Your task to perform on an android device: open app "YouTube Kids" (install if not already installed), go to login, and select forgot password Image 0: 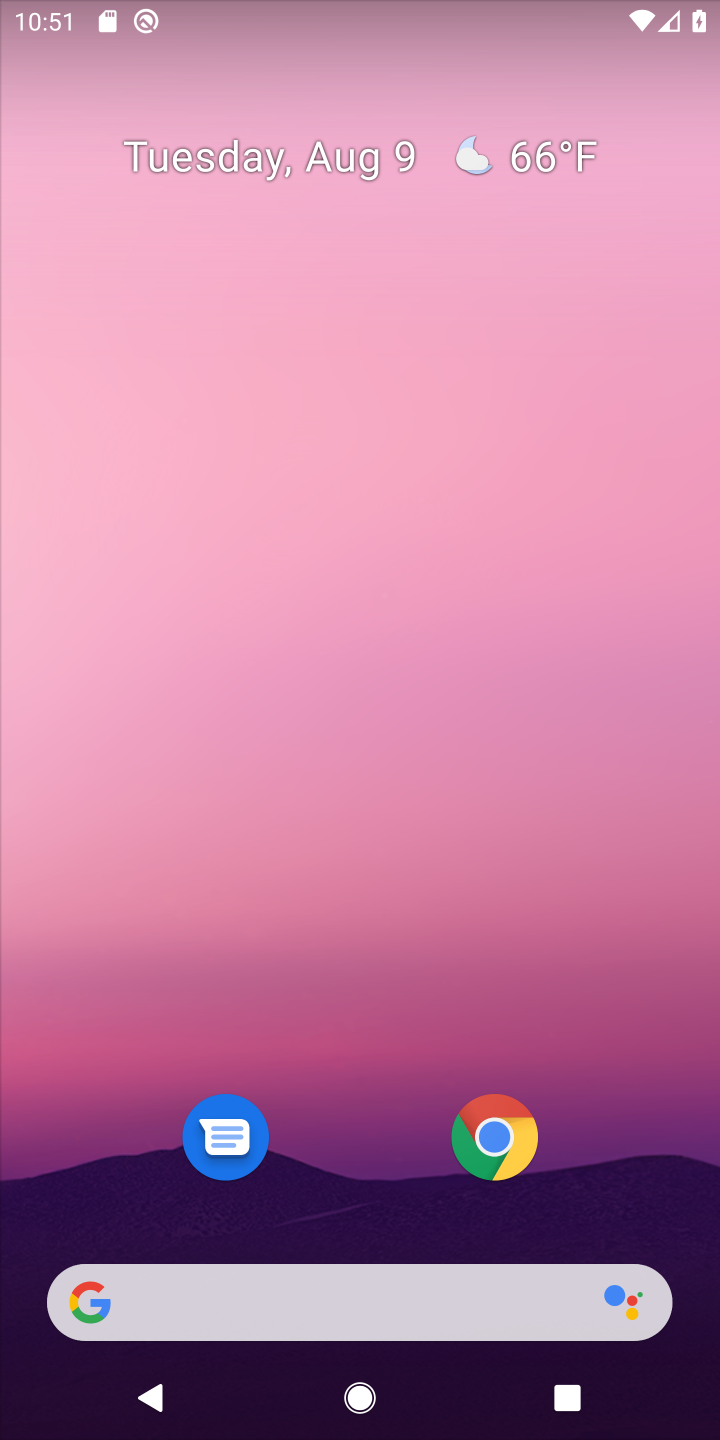
Step 0: drag from (360, 1039) to (375, 350)
Your task to perform on an android device: open app "YouTube Kids" (install if not already installed), go to login, and select forgot password Image 1: 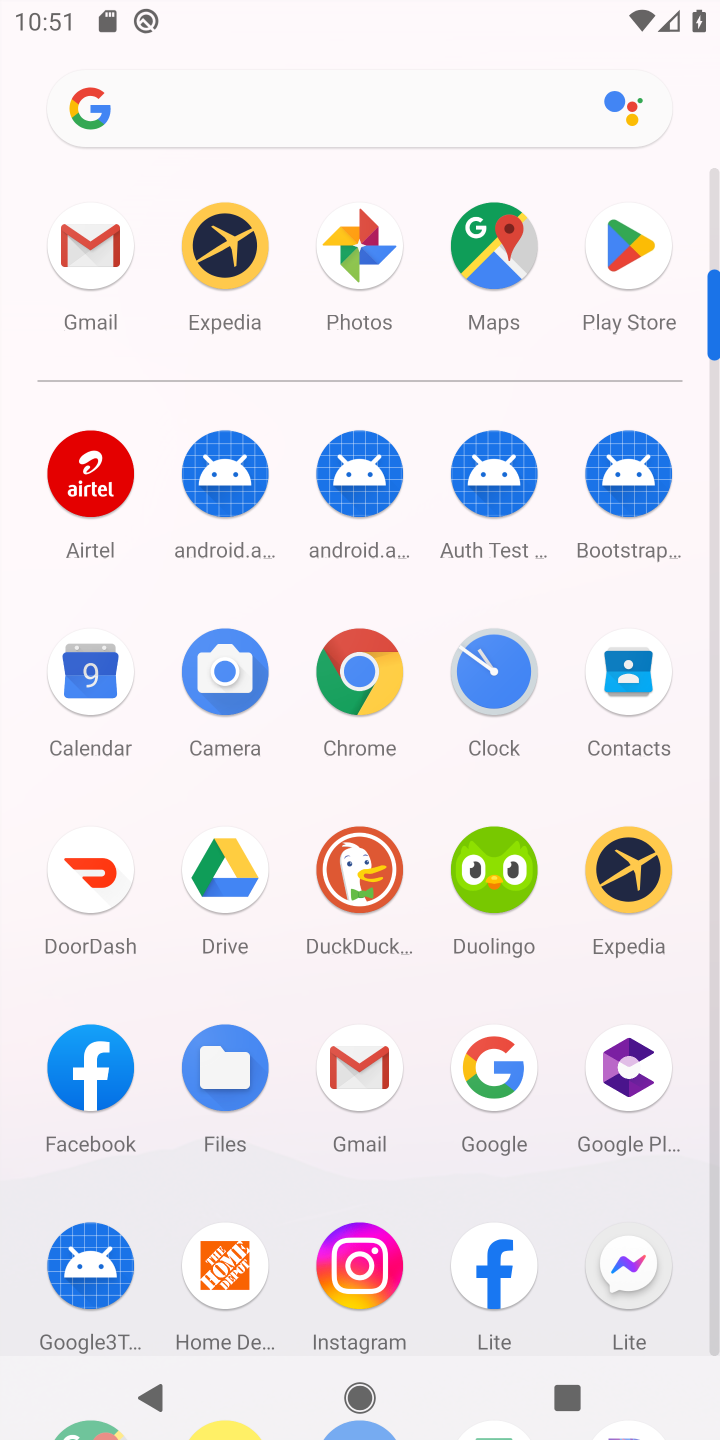
Step 1: click (619, 247)
Your task to perform on an android device: open app "YouTube Kids" (install if not already installed), go to login, and select forgot password Image 2: 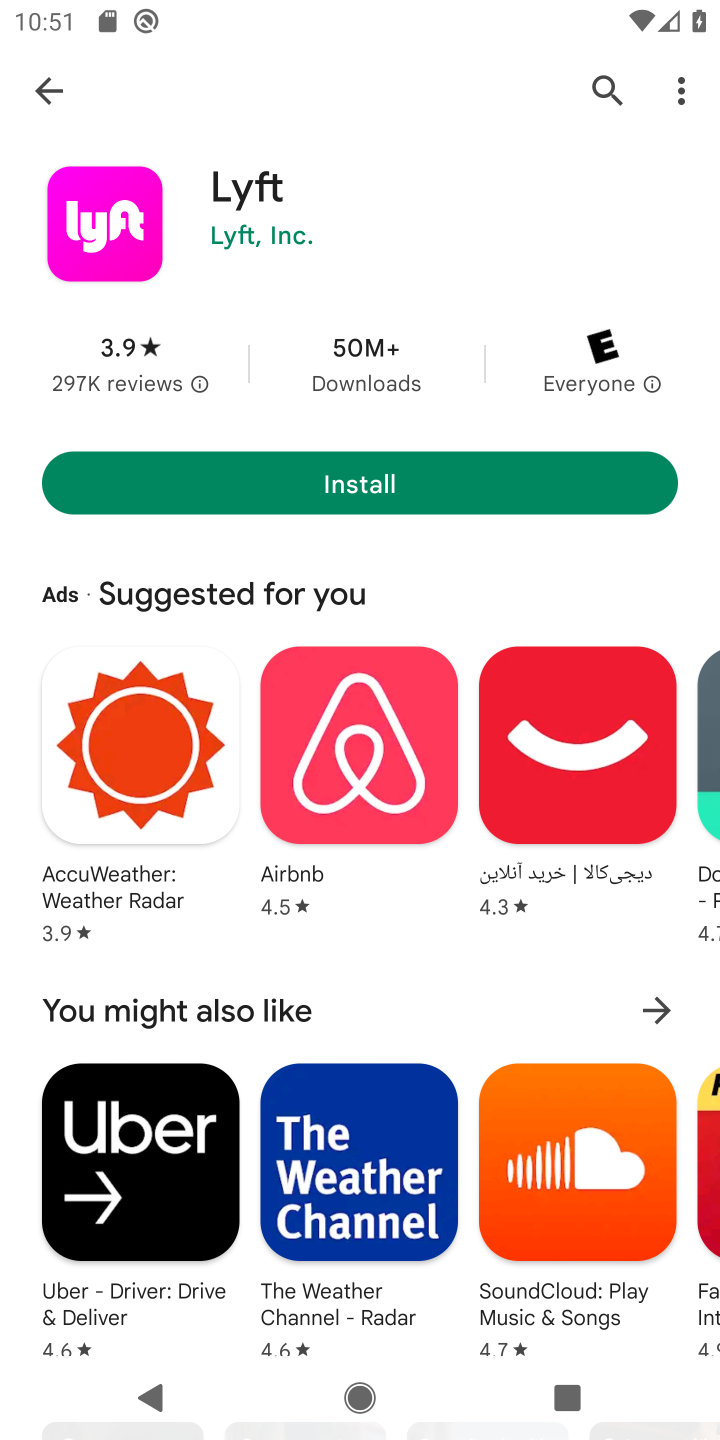
Step 2: click (599, 89)
Your task to perform on an android device: open app "YouTube Kids" (install if not already installed), go to login, and select forgot password Image 3: 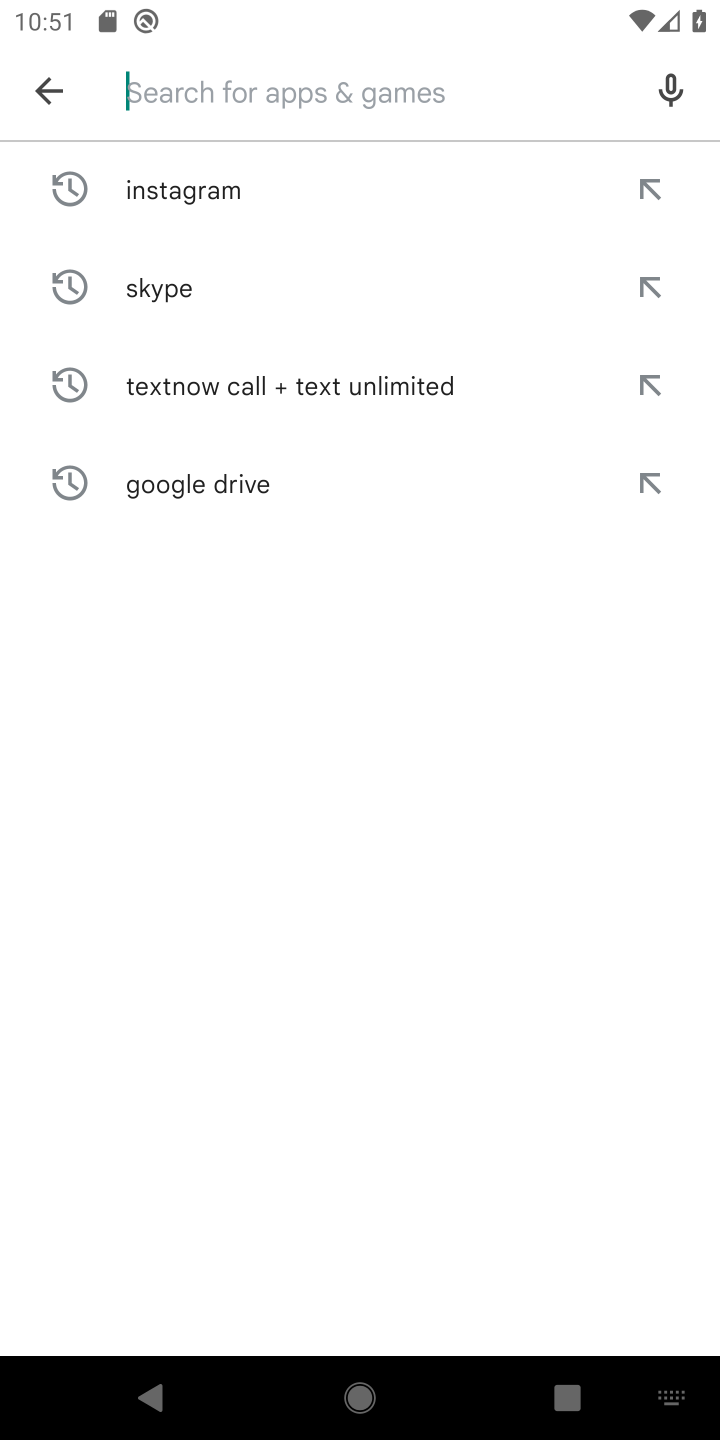
Step 3: type "YouTube Kids"
Your task to perform on an android device: open app "YouTube Kids" (install if not already installed), go to login, and select forgot password Image 4: 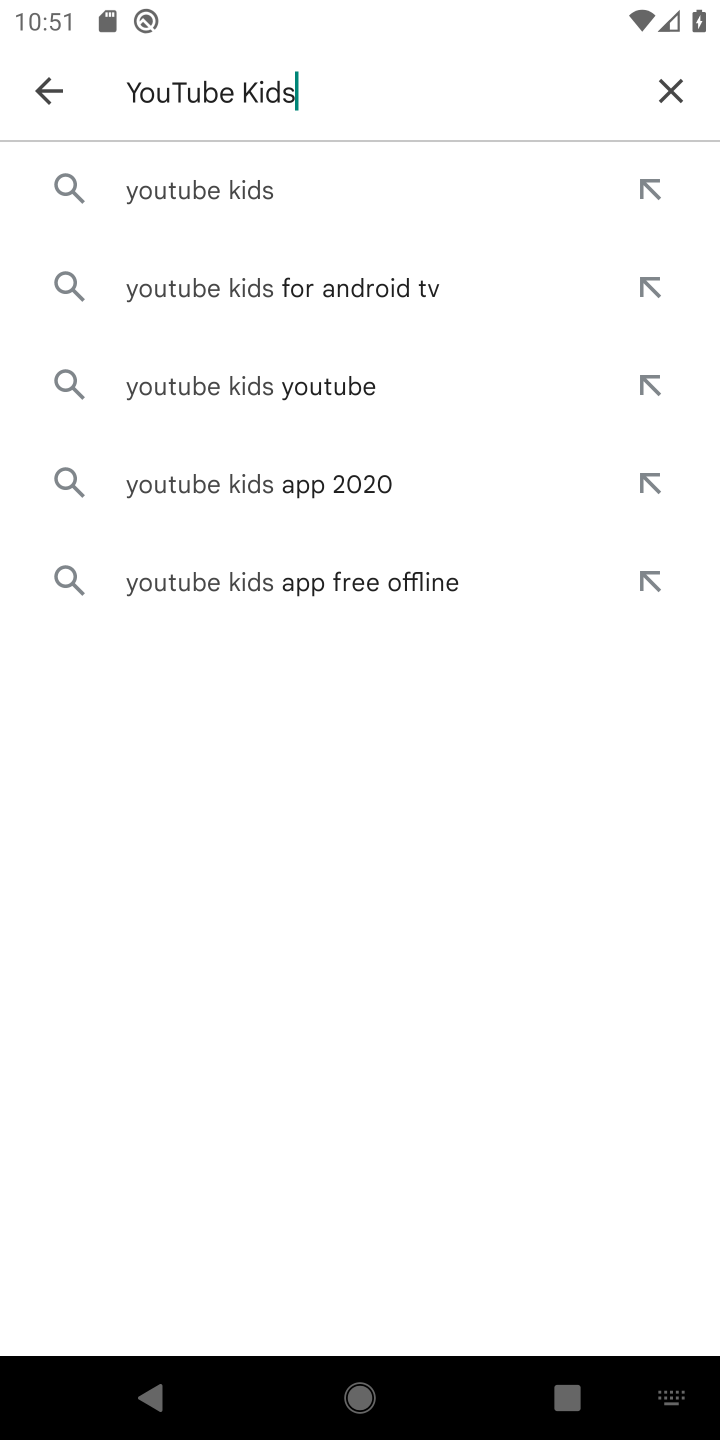
Step 4: type ""
Your task to perform on an android device: open app "YouTube Kids" (install if not already installed), go to login, and select forgot password Image 5: 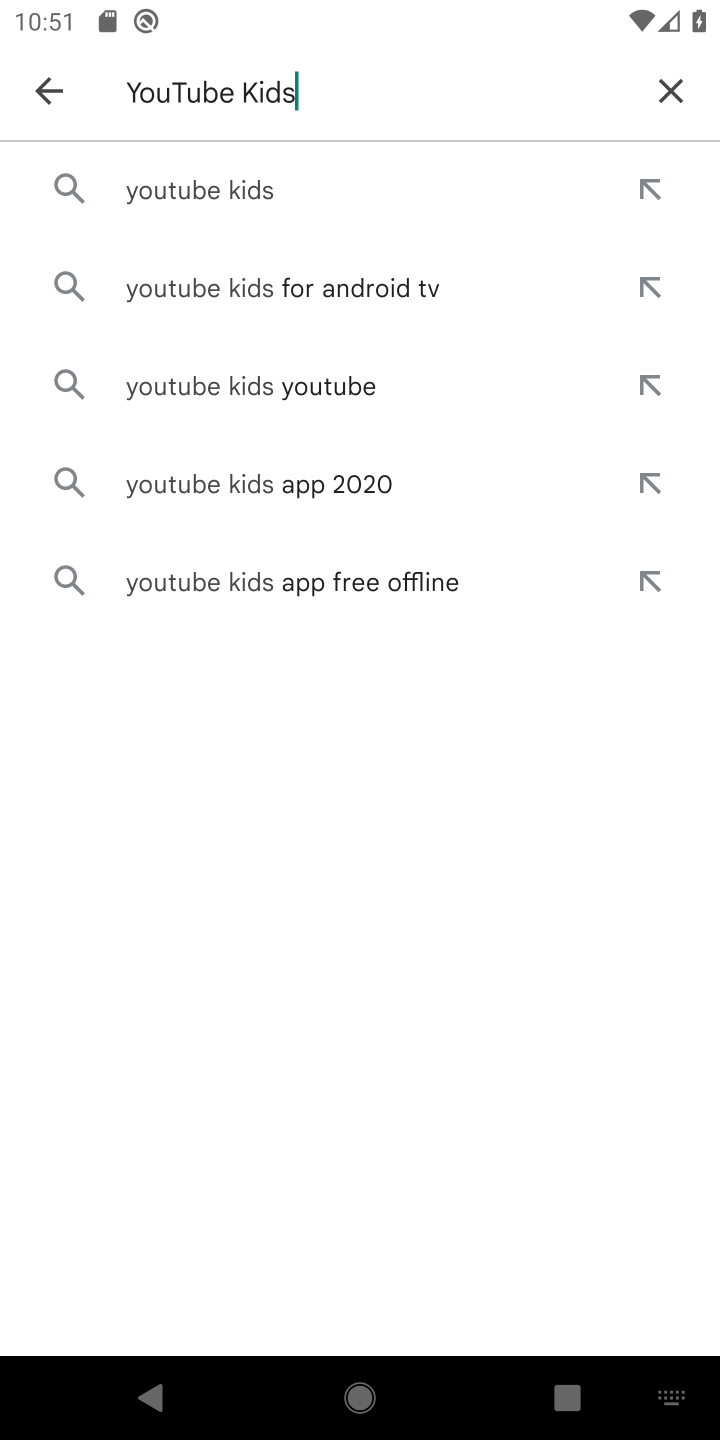
Step 5: click (241, 204)
Your task to perform on an android device: open app "YouTube Kids" (install if not already installed), go to login, and select forgot password Image 6: 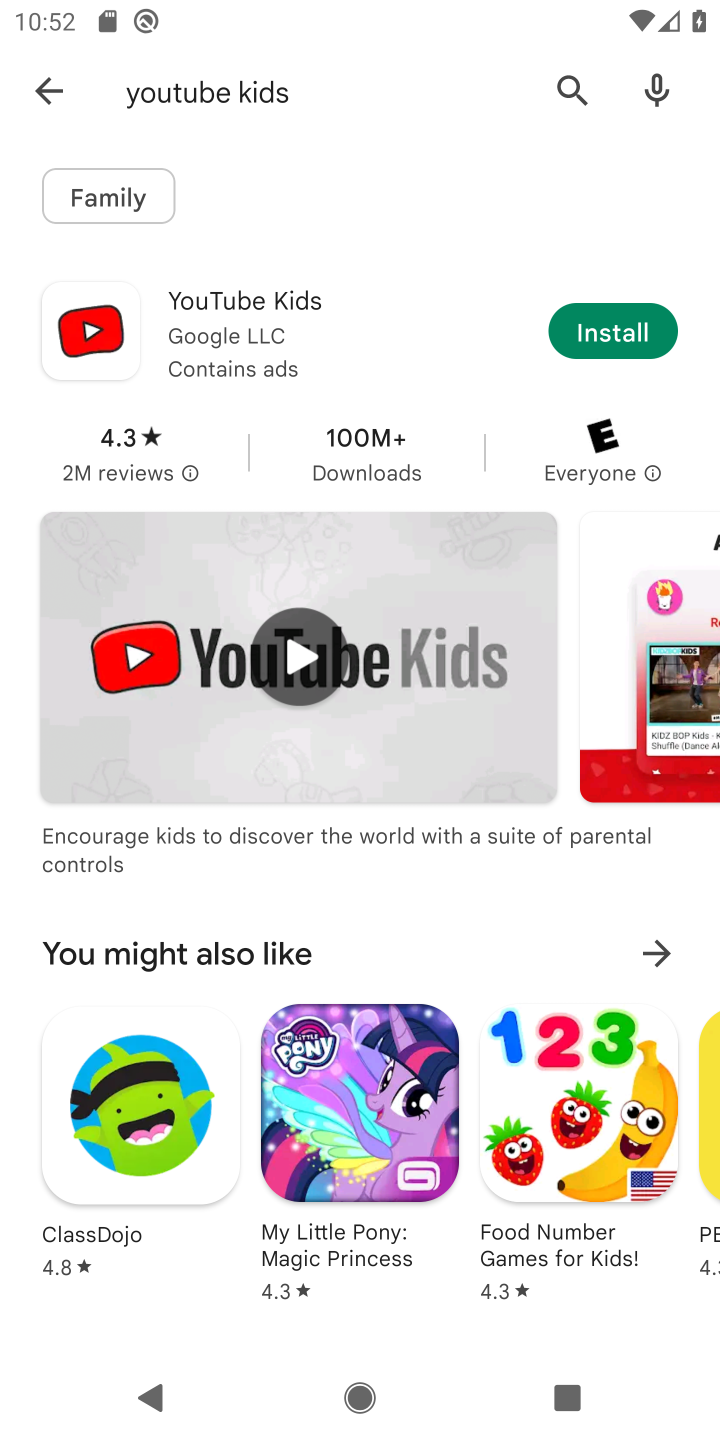
Step 6: click (593, 316)
Your task to perform on an android device: open app "YouTube Kids" (install if not already installed), go to login, and select forgot password Image 7: 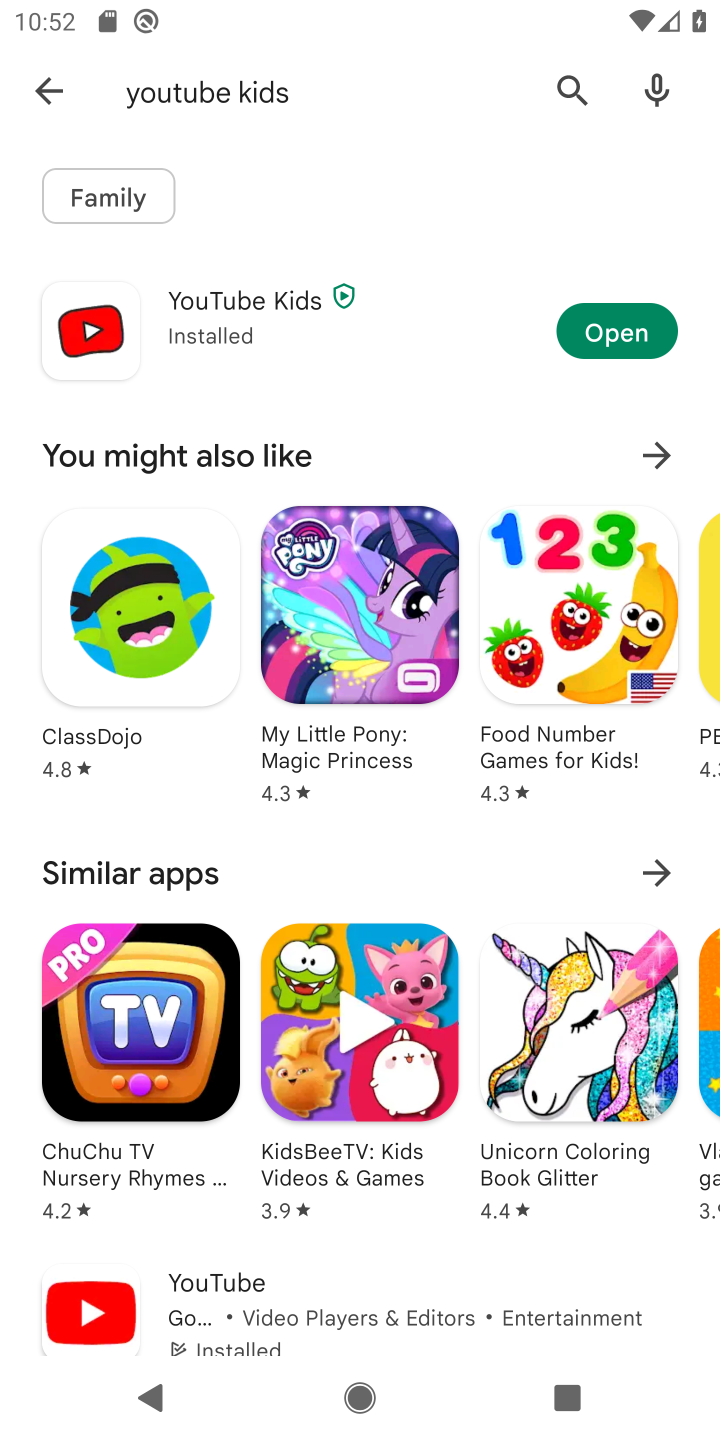
Step 7: click (595, 332)
Your task to perform on an android device: open app "YouTube Kids" (install if not already installed), go to login, and select forgot password Image 8: 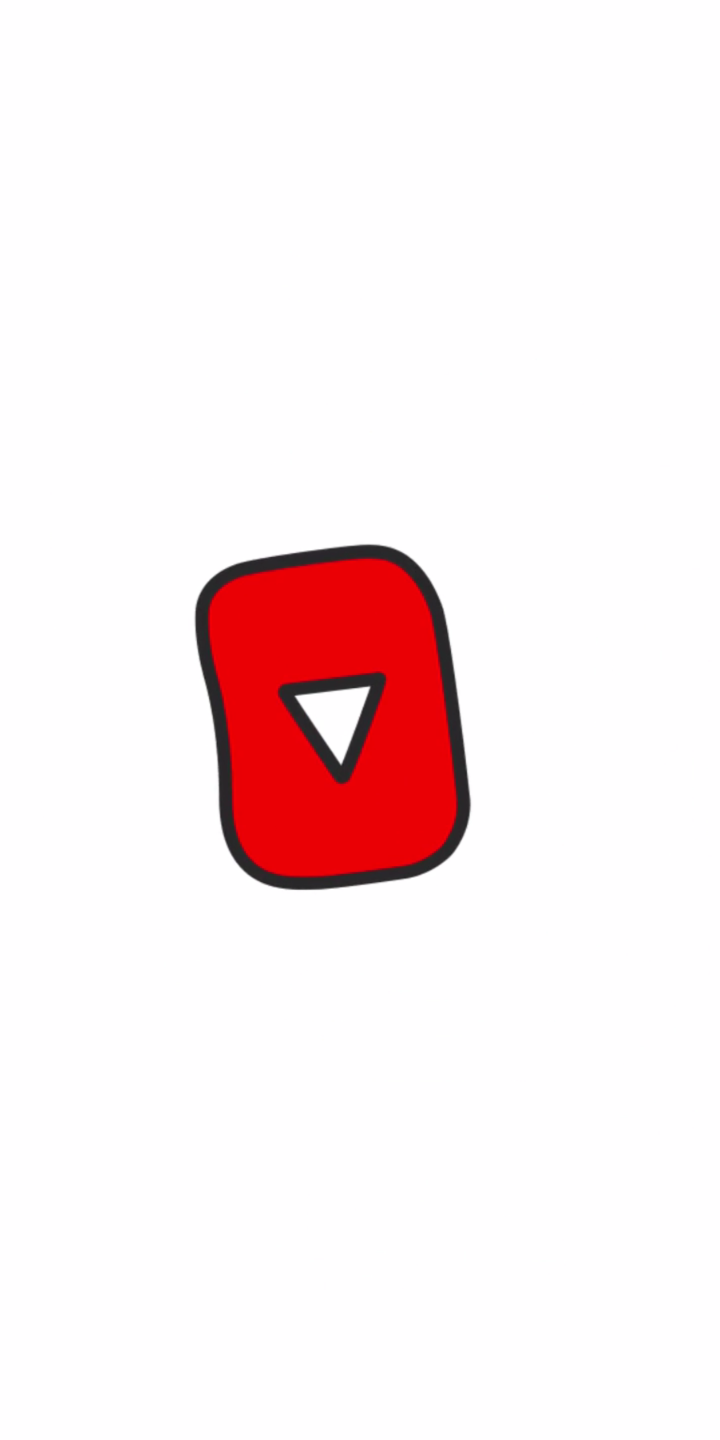
Step 8: task complete